Your task to perform on an android device: Show me productivity apps on the Play Store Image 0: 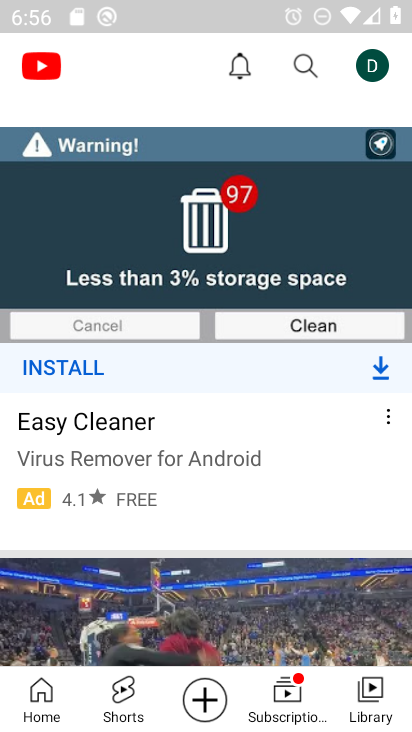
Step 0: press home button
Your task to perform on an android device: Show me productivity apps on the Play Store Image 1: 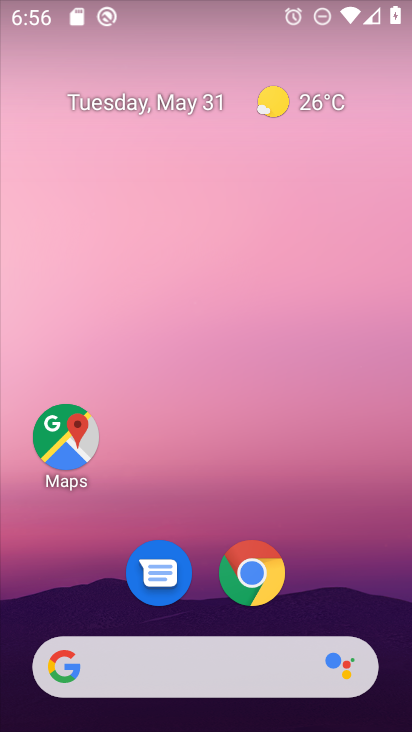
Step 1: drag from (398, 659) to (286, 21)
Your task to perform on an android device: Show me productivity apps on the Play Store Image 2: 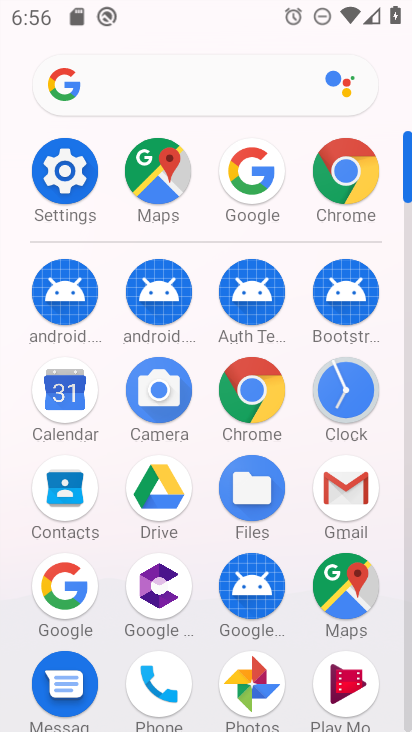
Step 2: click (246, 687)
Your task to perform on an android device: Show me productivity apps on the Play Store Image 3: 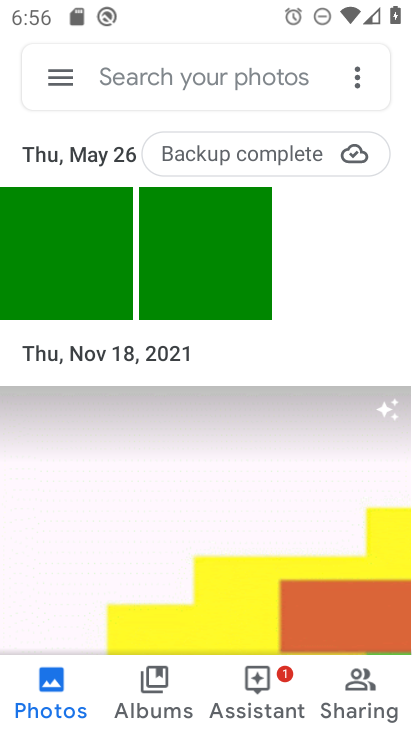
Step 3: press home button
Your task to perform on an android device: Show me productivity apps on the Play Store Image 4: 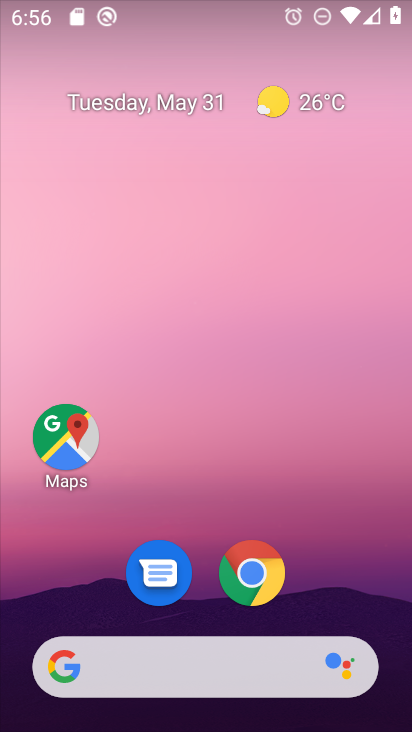
Step 4: drag from (400, 630) to (328, 38)
Your task to perform on an android device: Show me productivity apps on the Play Store Image 5: 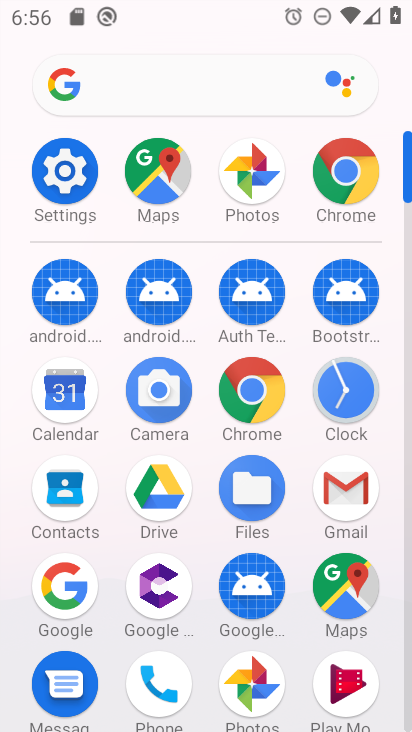
Step 5: drag from (112, 667) to (152, 158)
Your task to perform on an android device: Show me productivity apps on the Play Store Image 6: 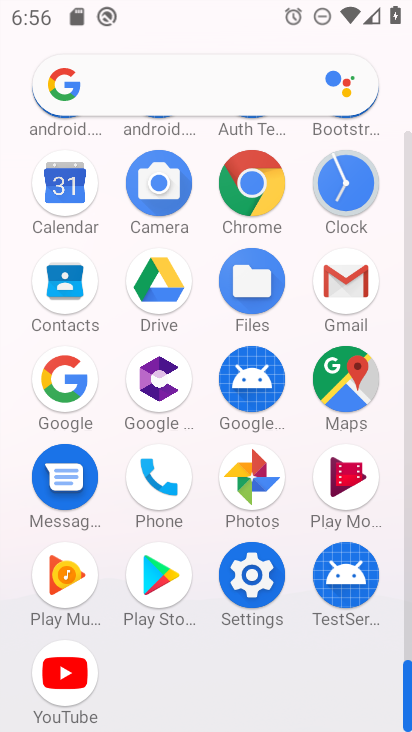
Step 6: click (147, 566)
Your task to perform on an android device: Show me productivity apps on the Play Store Image 7: 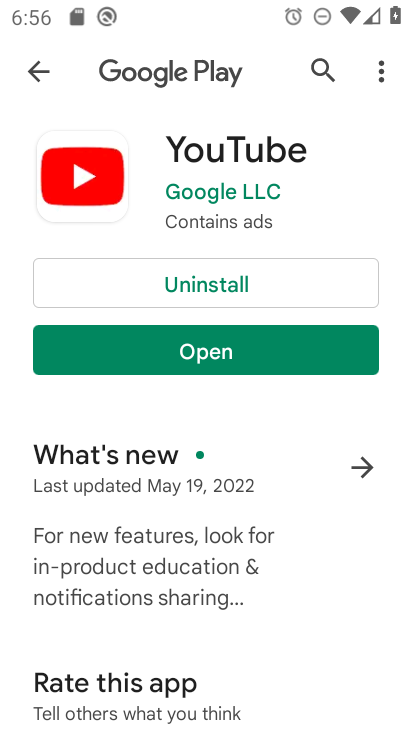
Step 7: press back button
Your task to perform on an android device: Show me productivity apps on the Play Store Image 8: 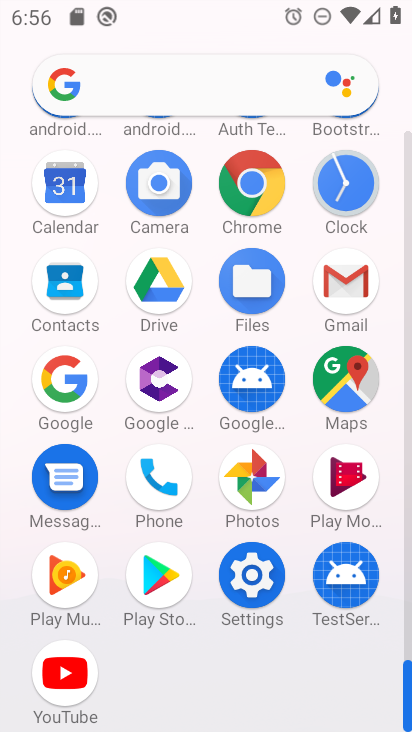
Step 8: click (166, 576)
Your task to perform on an android device: Show me productivity apps on the Play Store Image 9: 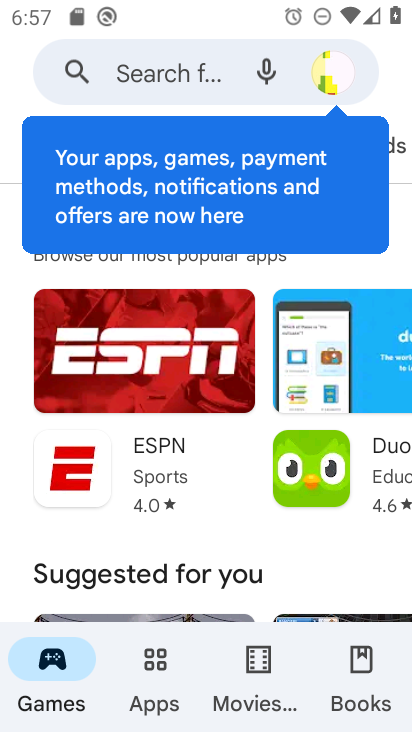
Step 9: click (152, 654)
Your task to perform on an android device: Show me productivity apps on the Play Store Image 10: 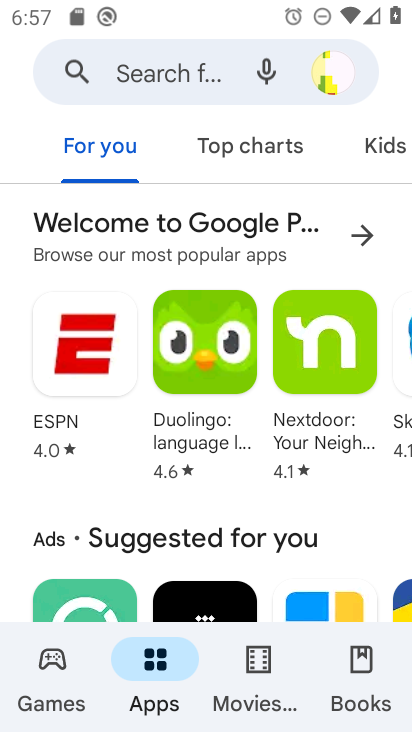
Step 10: task complete